Your task to perform on an android device: turn on showing notifications on the lock screen Image 0: 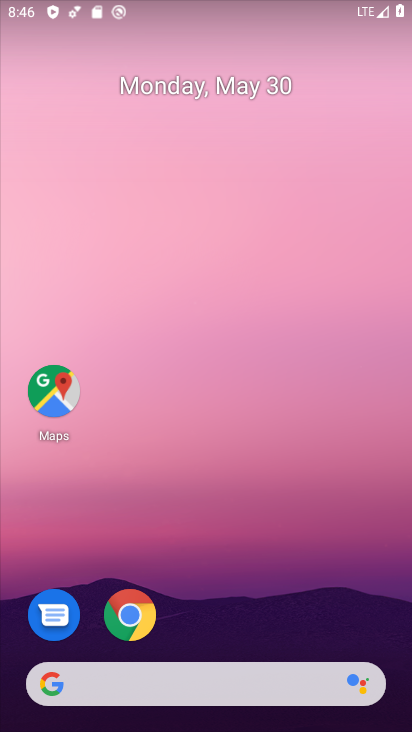
Step 0: drag from (143, 731) to (405, 215)
Your task to perform on an android device: turn on showing notifications on the lock screen Image 1: 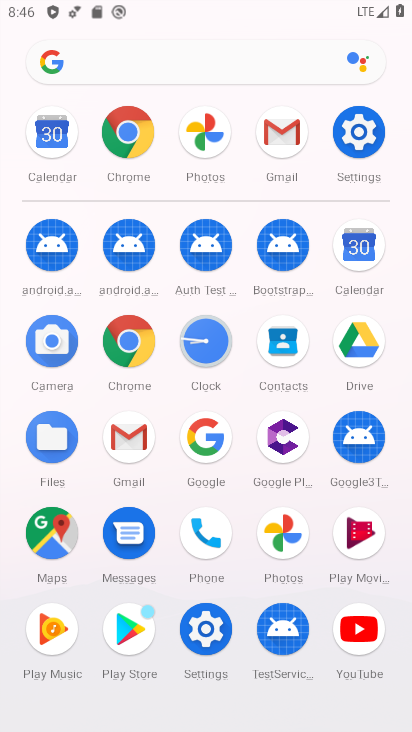
Step 1: click (376, 148)
Your task to perform on an android device: turn on showing notifications on the lock screen Image 2: 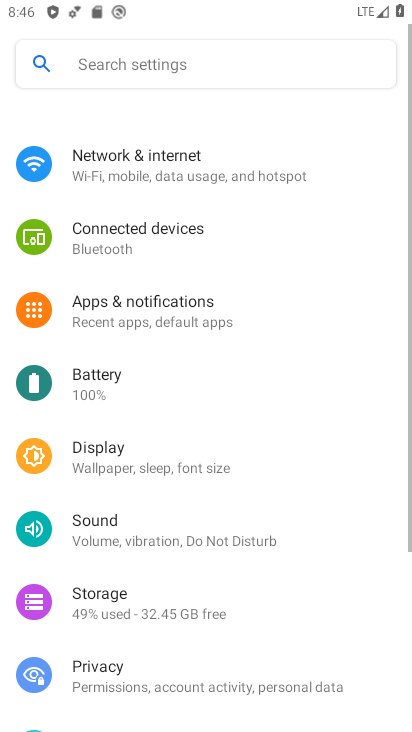
Step 2: click (117, 396)
Your task to perform on an android device: turn on showing notifications on the lock screen Image 3: 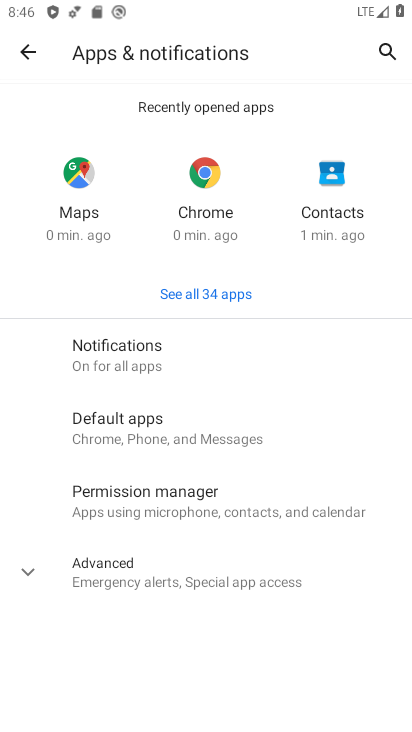
Step 3: click (186, 353)
Your task to perform on an android device: turn on showing notifications on the lock screen Image 4: 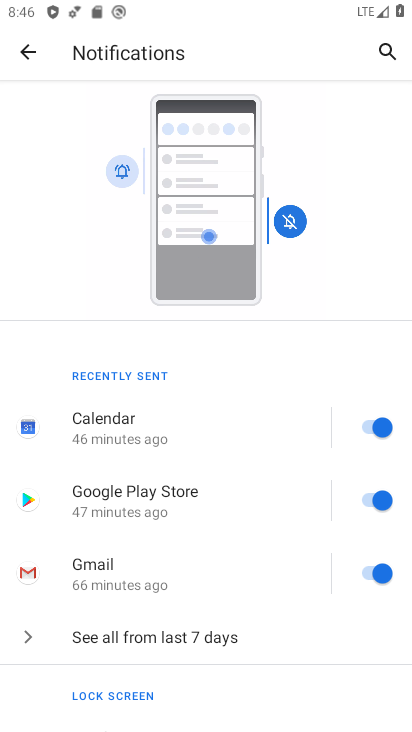
Step 4: drag from (171, 714) to (231, 453)
Your task to perform on an android device: turn on showing notifications on the lock screen Image 5: 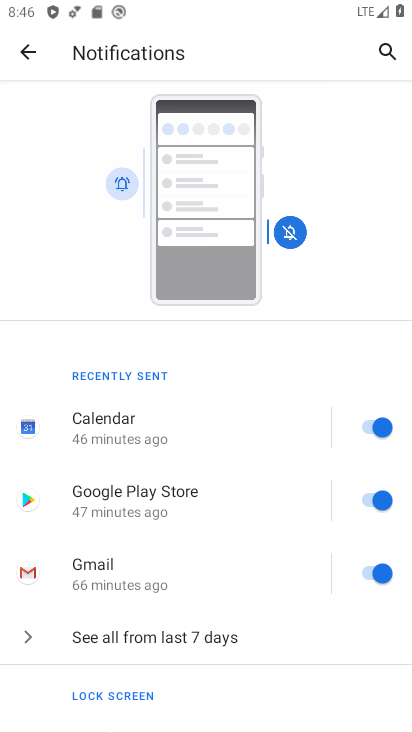
Step 5: drag from (119, 705) to (161, 377)
Your task to perform on an android device: turn on showing notifications on the lock screen Image 6: 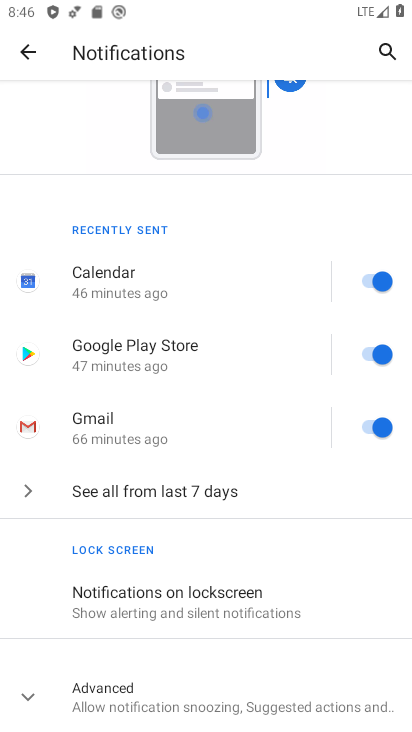
Step 6: click (167, 592)
Your task to perform on an android device: turn on showing notifications on the lock screen Image 7: 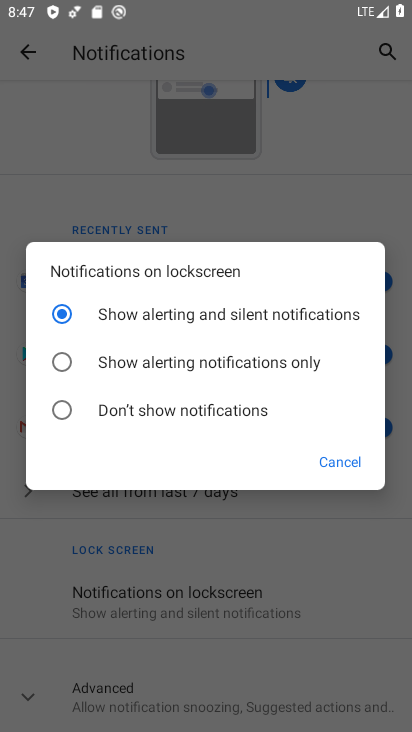
Step 7: task complete